Your task to perform on an android device: Open sound settings Image 0: 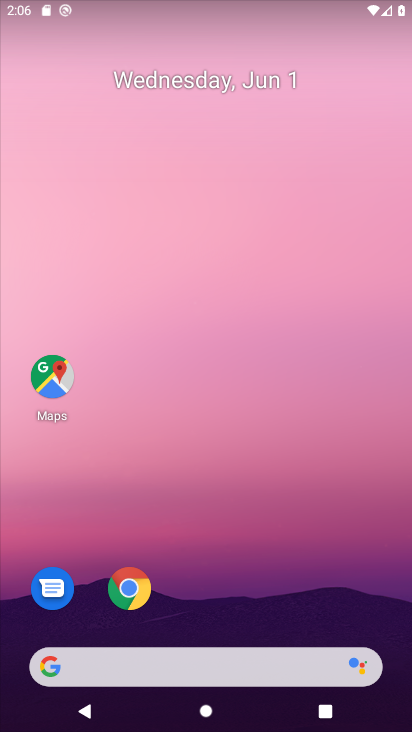
Step 0: drag from (159, 620) to (250, 228)
Your task to perform on an android device: Open sound settings Image 1: 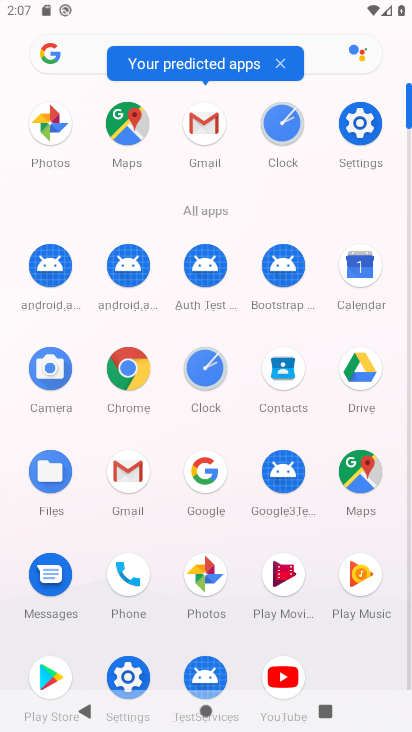
Step 1: click (138, 680)
Your task to perform on an android device: Open sound settings Image 2: 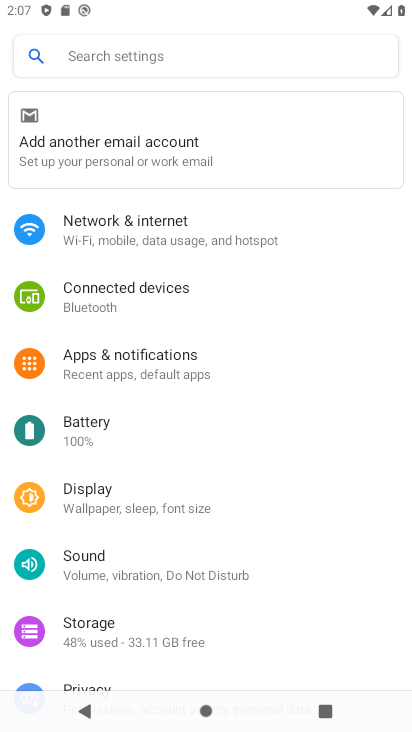
Step 2: click (144, 560)
Your task to perform on an android device: Open sound settings Image 3: 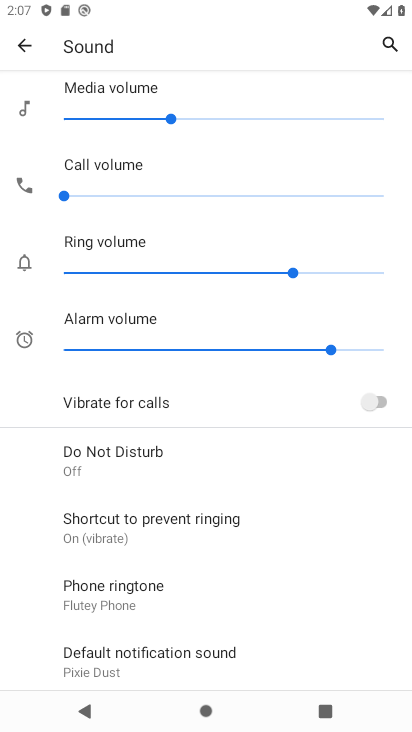
Step 3: task complete